Your task to perform on an android device: Search for "bose quietcomfort 35" on newegg.com, select the first entry, add it to the cart, then select checkout. Image 0: 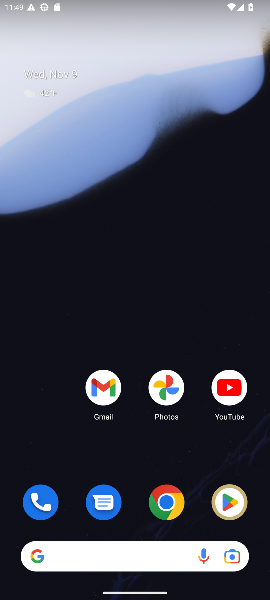
Step 0: drag from (134, 465) to (142, 1)
Your task to perform on an android device: Search for "bose quietcomfort 35" on newegg.com, select the first entry, add it to the cart, then select checkout. Image 1: 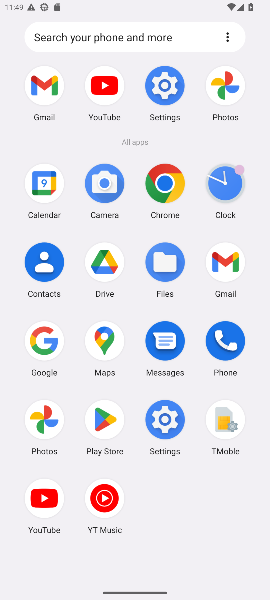
Step 1: click (172, 179)
Your task to perform on an android device: Search for "bose quietcomfort 35" on newegg.com, select the first entry, add it to the cart, then select checkout. Image 2: 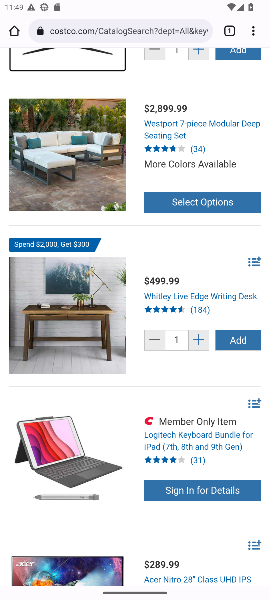
Step 2: click (149, 32)
Your task to perform on an android device: Search for "bose quietcomfort 35" on newegg.com, select the first entry, add it to the cart, then select checkout. Image 3: 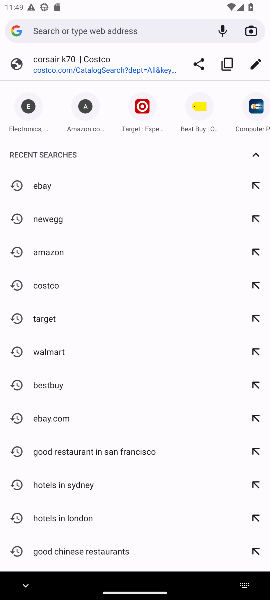
Step 3: type "newegg.com"
Your task to perform on an android device: Search for "bose quietcomfort 35" on newegg.com, select the first entry, add it to the cart, then select checkout. Image 4: 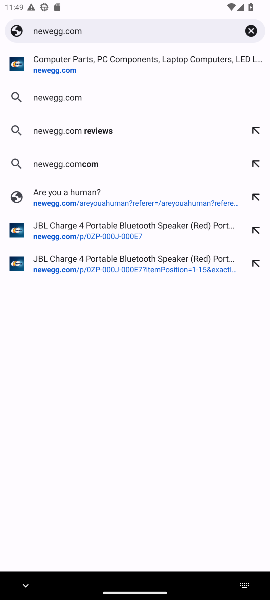
Step 4: press enter
Your task to perform on an android device: Search for "bose quietcomfort 35" on newegg.com, select the first entry, add it to the cart, then select checkout. Image 5: 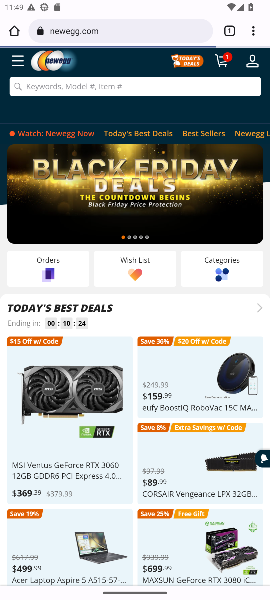
Step 5: click (168, 81)
Your task to perform on an android device: Search for "bose quietcomfort 35" on newegg.com, select the first entry, add it to the cart, then select checkout. Image 6: 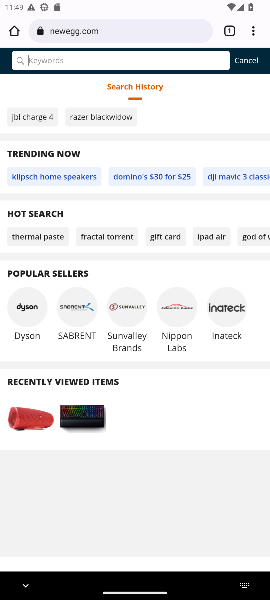
Step 6: type "bose quietcomfort 35"
Your task to perform on an android device: Search for "bose quietcomfort 35" on newegg.com, select the first entry, add it to the cart, then select checkout. Image 7: 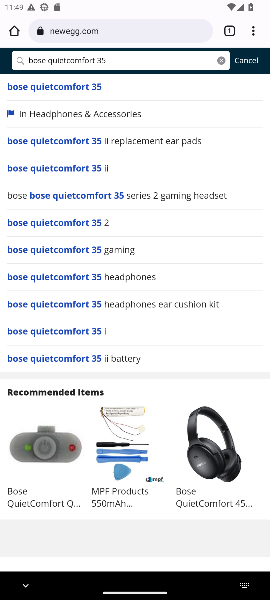
Step 7: press enter
Your task to perform on an android device: Search for "bose quietcomfort 35" on newegg.com, select the first entry, add it to the cart, then select checkout. Image 8: 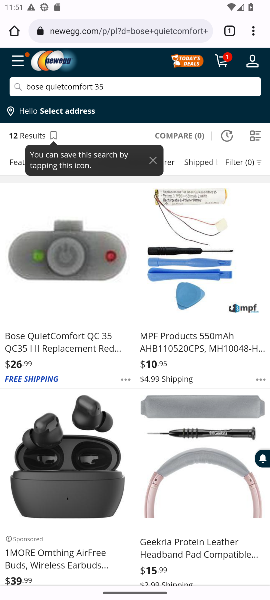
Step 8: drag from (109, 517) to (108, 446)
Your task to perform on an android device: Search for "bose quietcomfort 35" on newegg.com, select the first entry, add it to the cart, then select checkout. Image 9: 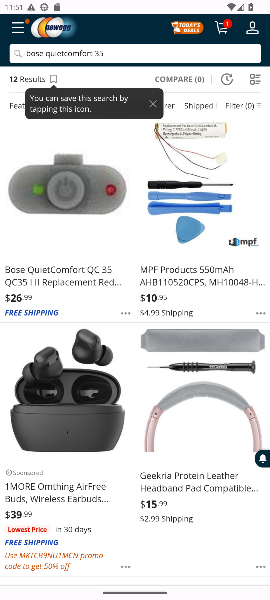
Step 9: click (75, 277)
Your task to perform on an android device: Search for "bose quietcomfort 35" on newegg.com, select the first entry, add it to the cart, then select checkout. Image 10: 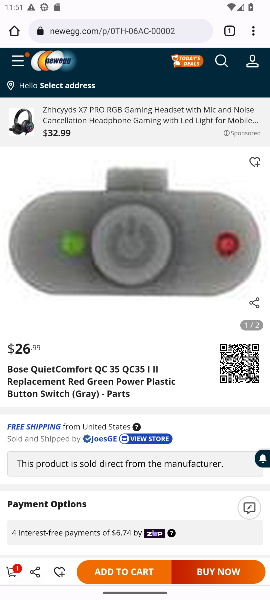
Step 10: click (125, 575)
Your task to perform on an android device: Search for "bose quietcomfort 35" on newegg.com, select the first entry, add it to the cart, then select checkout. Image 11: 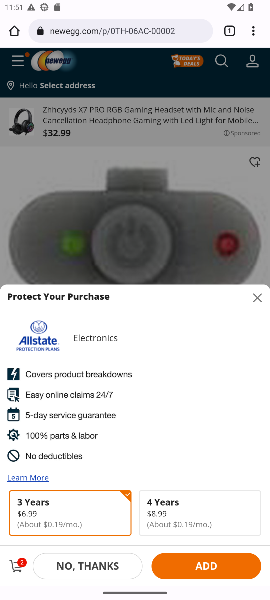
Step 11: click (15, 572)
Your task to perform on an android device: Search for "bose quietcomfort 35" on newegg.com, select the first entry, add it to the cart, then select checkout. Image 12: 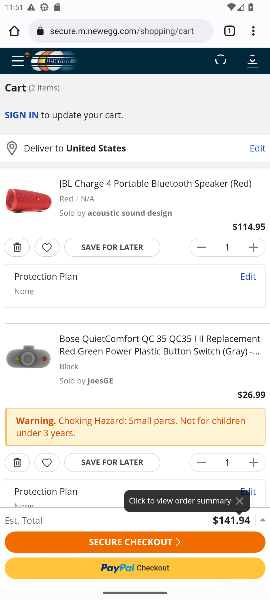
Step 12: click (161, 543)
Your task to perform on an android device: Search for "bose quietcomfort 35" on newegg.com, select the first entry, add it to the cart, then select checkout. Image 13: 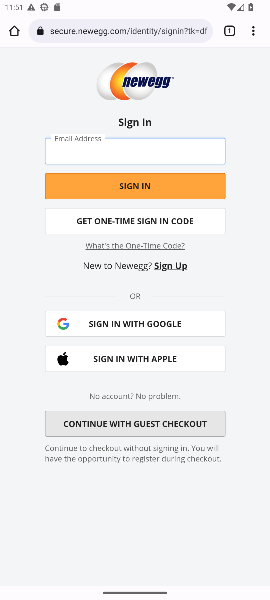
Step 13: task complete